Your task to perform on an android device: search for starred emails in the gmail app Image 0: 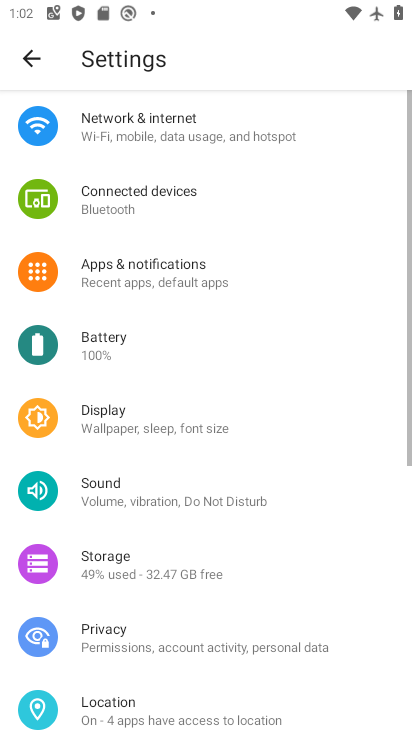
Step 0: press home button
Your task to perform on an android device: search for starred emails in the gmail app Image 1: 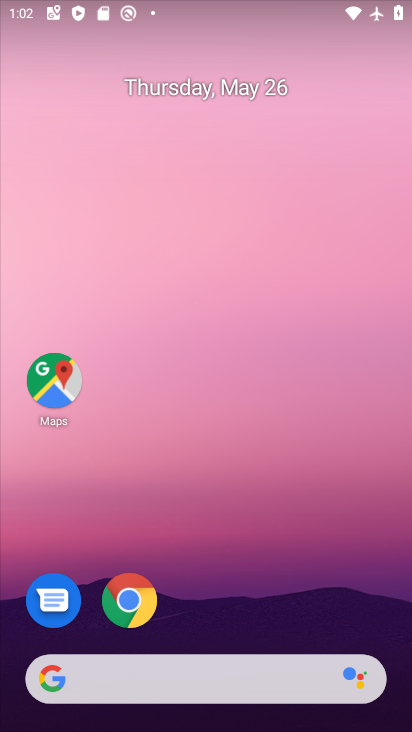
Step 1: drag from (244, 557) to (244, 63)
Your task to perform on an android device: search for starred emails in the gmail app Image 2: 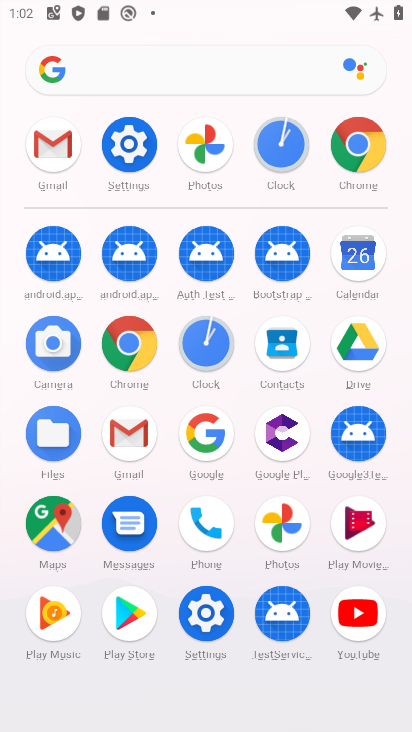
Step 2: click (58, 143)
Your task to perform on an android device: search for starred emails in the gmail app Image 3: 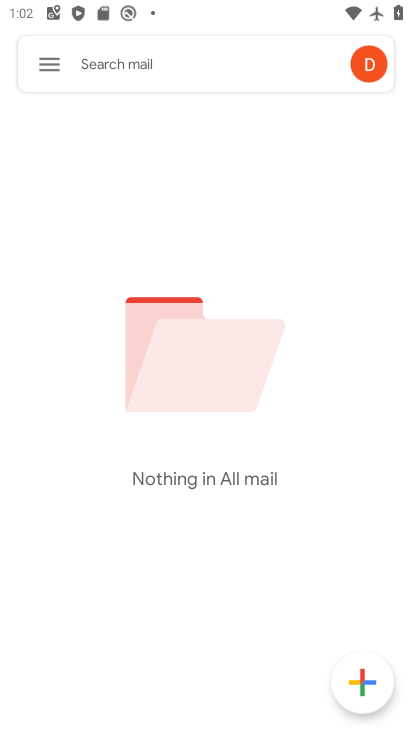
Step 3: click (55, 67)
Your task to perform on an android device: search for starred emails in the gmail app Image 4: 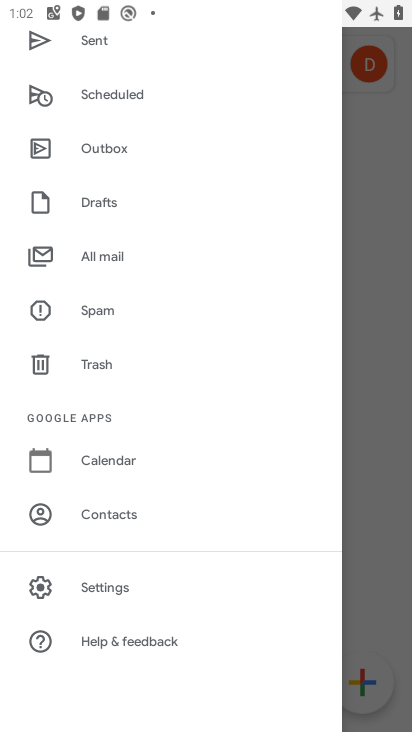
Step 4: drag from (143, 278) to (150, 509)
Your task to perform on an android device: search for starred emails in the gmail app Image 5: 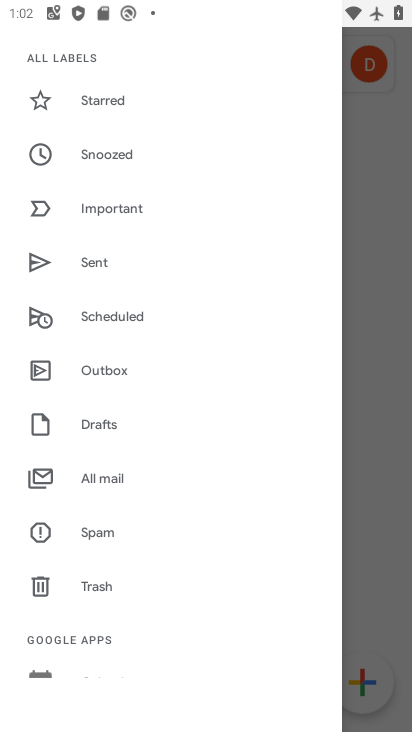
Step 5: click (137, 110)
Your task to perform on an android device: search for starred emails in the gmail app Image 6: 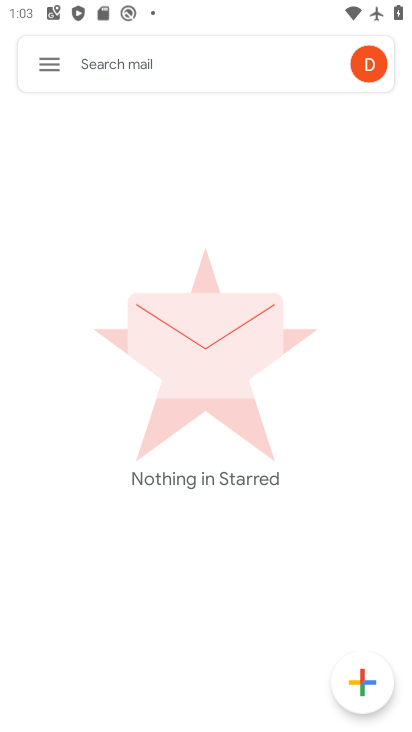
Step 6: task complete